Your task to perform on an android device: Open the Play Movies app and select the watchlist tab. Image 0: 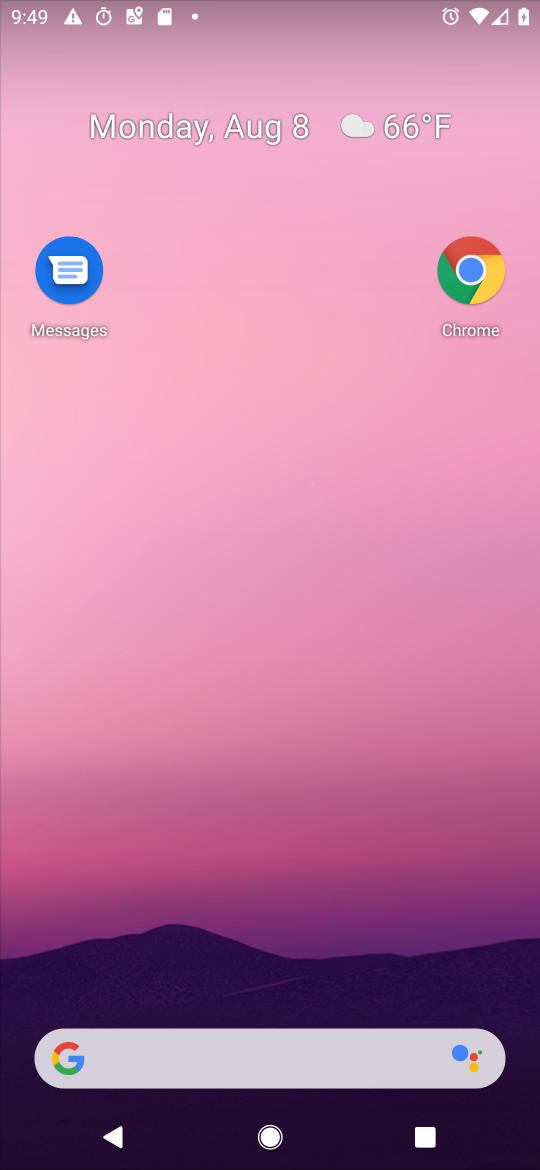
Step 0: drag from (235, 965) to (273, 196)
Your task to perform on an android device: Open the Play Movies app and select the watchlist tab. Image 1: 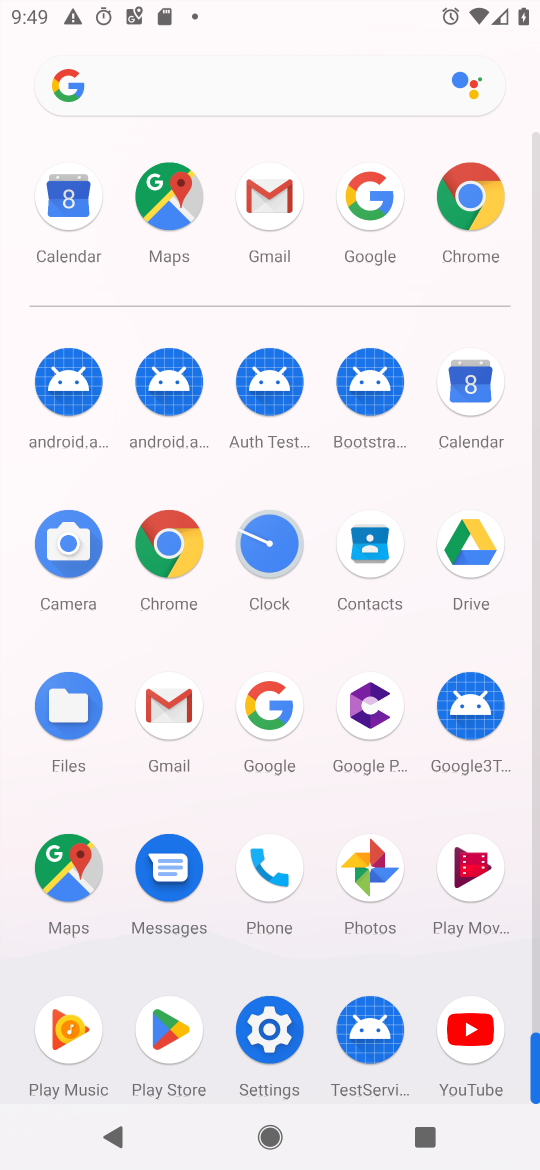
Step 1: drag from (233, 815) to (198, 420)
Your task to perform on an android device: Open the Play Movies app and select the watchlist tab. Image 2: 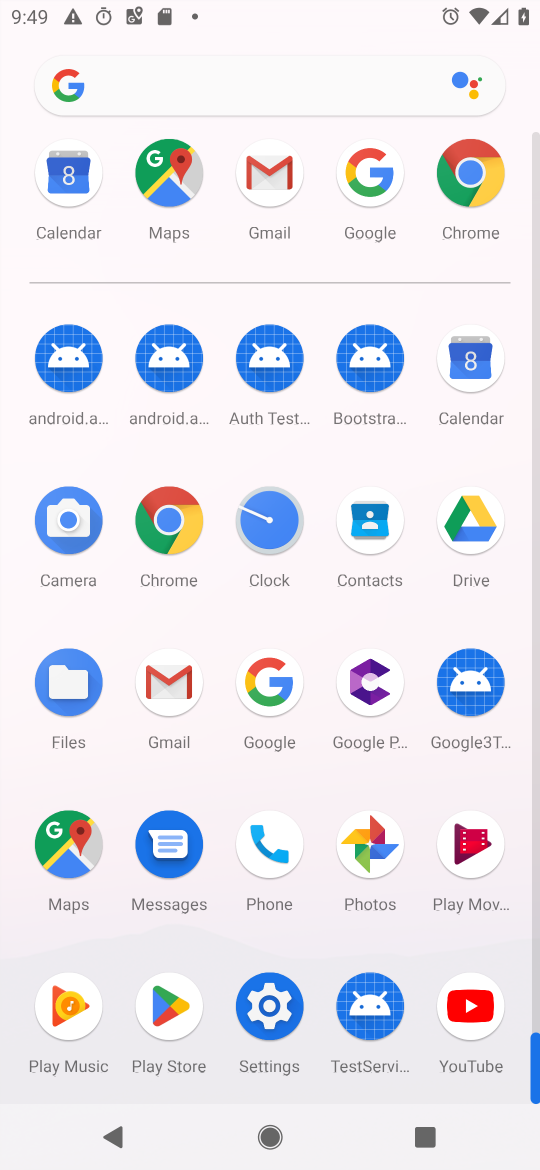
Step 2: click (479, 833)
Your task to perform on an android device: Open the Play Movies app and select the watchlist tab. Image 3: 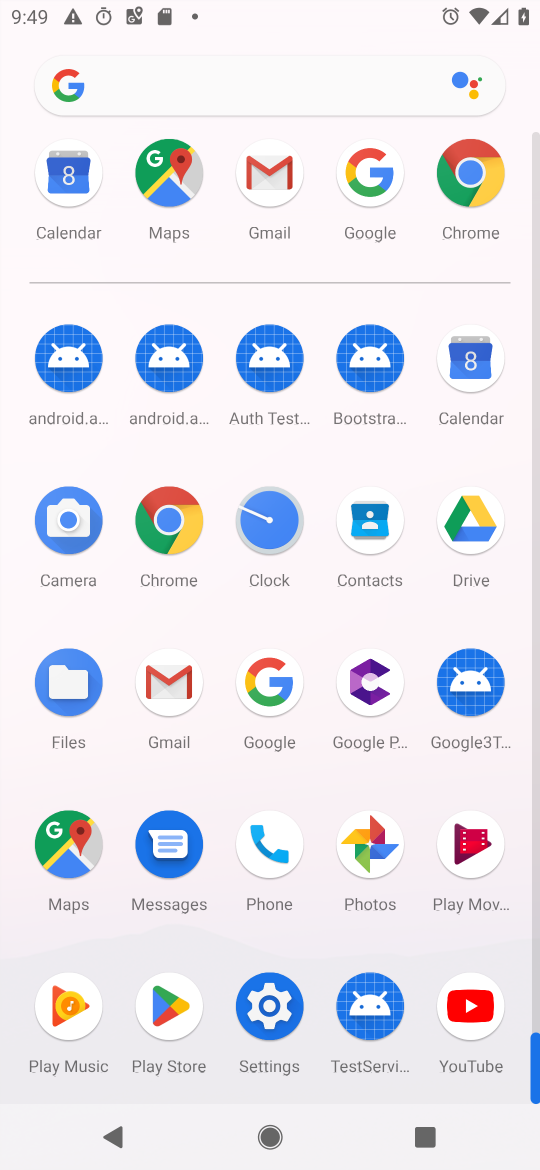
Step 3: click (479, 833)
Your task to perform on an android device: Open the Play Movies app and select the watchlist tab. Image 4: 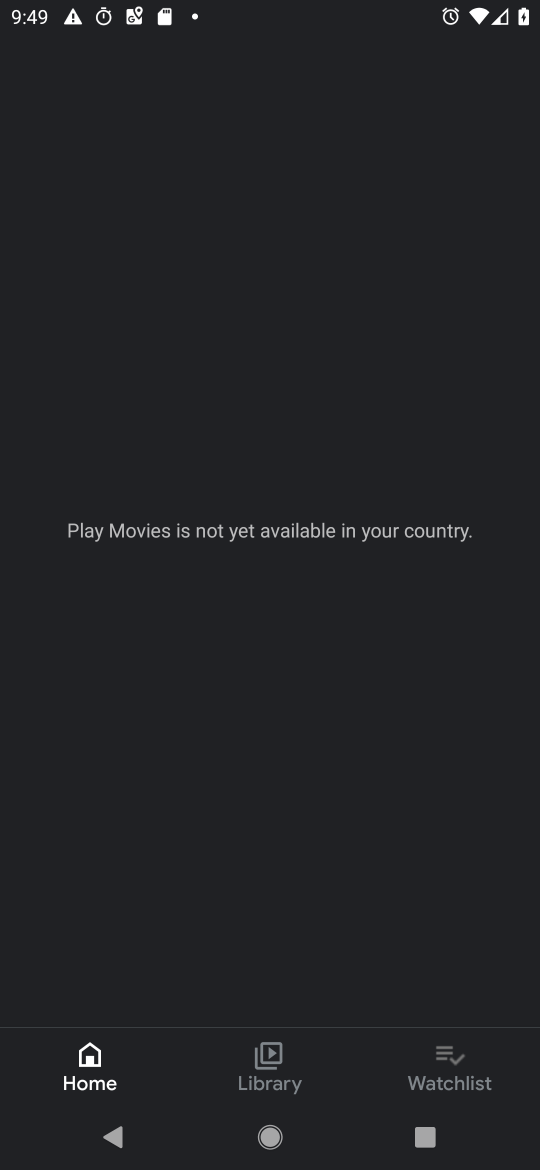
Step 4: click (440, 1061)
Your task to perform on an android device: Open the Play Movies app and select the watchlist tab. Image 5: 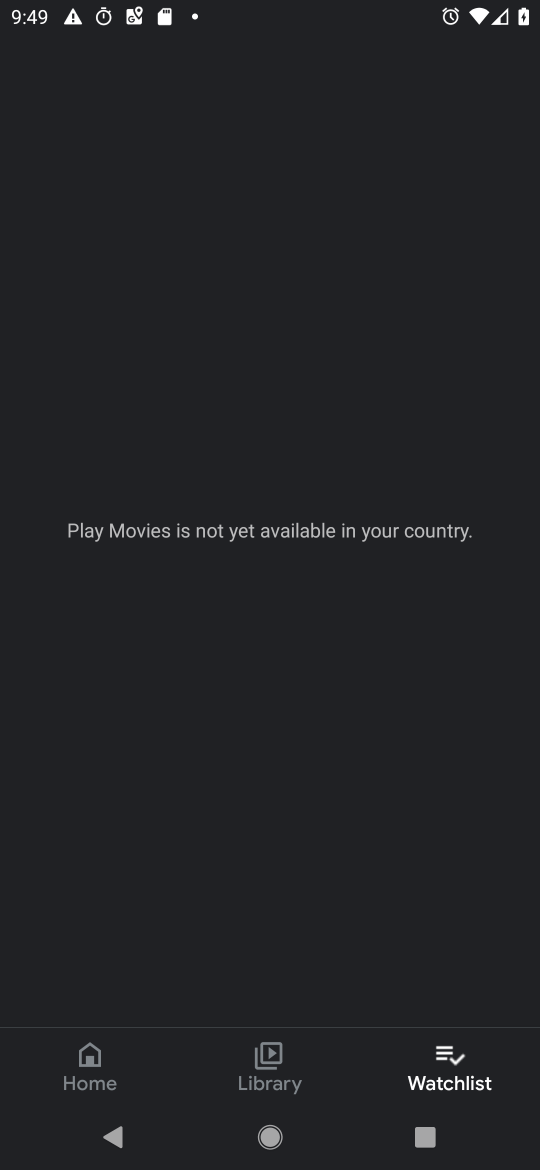
Step 5: task complete